Your task to perform on an android device: change notifications settings Image 0: 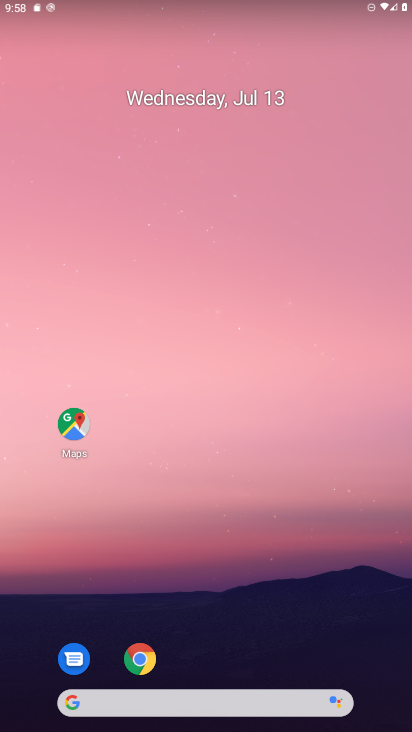
Step 0: drag from (189, 708) to (202, 159)
Your task to perform on an android device: change notifications settings Image 1: 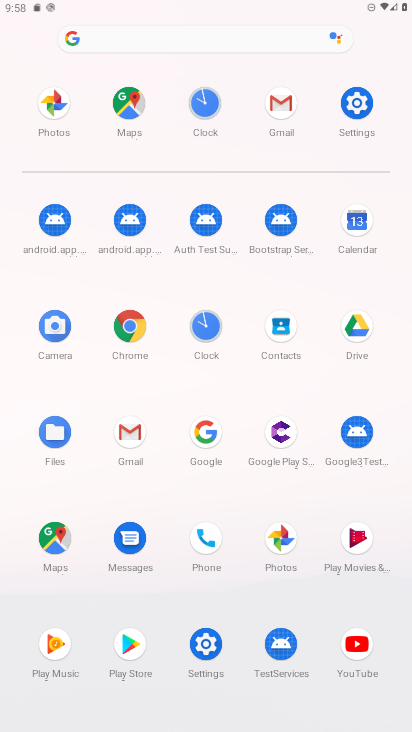
Step 1: click (359, 106)
Your task to perform on an android device: change notifications settings Image 2: 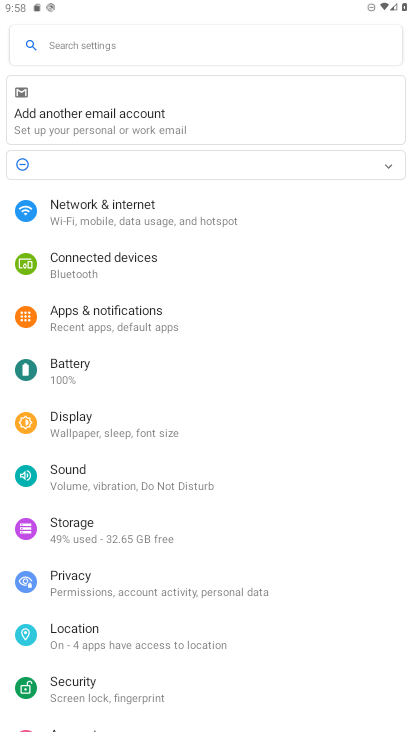
Step 2: click (113, 475)
Your task to perform on an android device: change notifications settings Image 3: 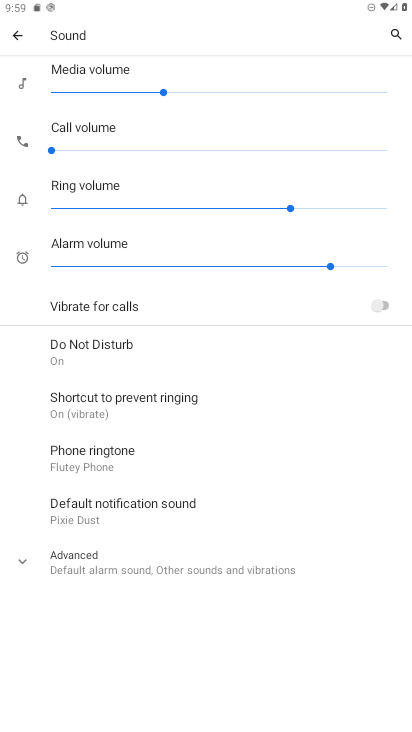
Step 3: click (383, 297)
Your task to perform on an android device: change notifications settings Image 4: 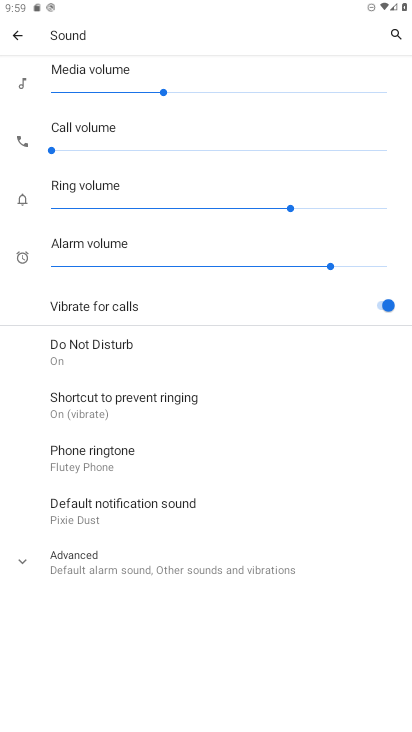
Step 4: task complete